Your task to perform on an android device: toggle wifi Image 0: 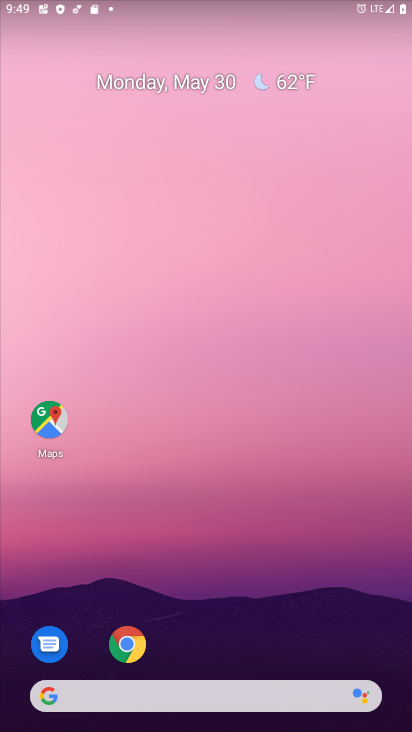
Step 0: drag from (396, 647) to (332, 123)
Your task to perform on an android device: toggle wifi Image 1: 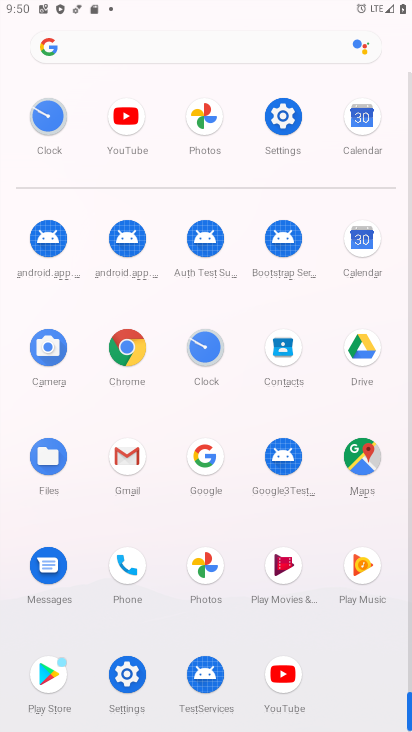
Step 1: click (126, 674)
Your task to perform on an android device: toggle wifi Image 2: 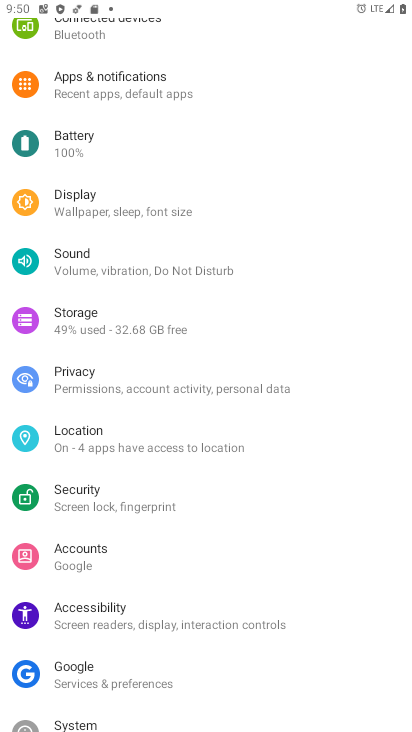
Step 2: drag from (339, 130) to (317, 416)
Your task to perform on an android device: toggle wifi Image 3: 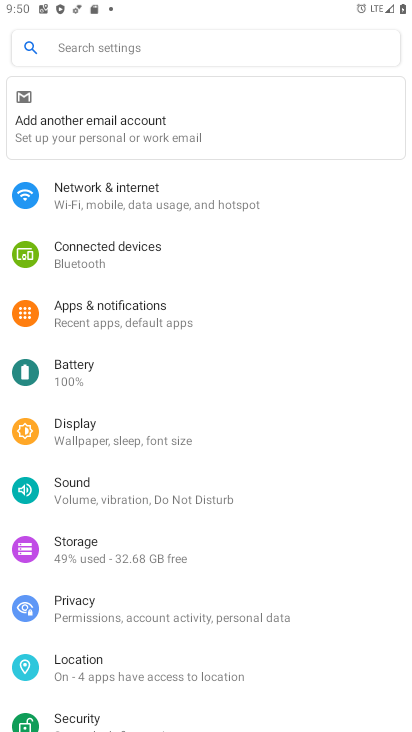
Step 3: click (126, 197)
Your task to perform on an android device: toggle wifi Image 4: 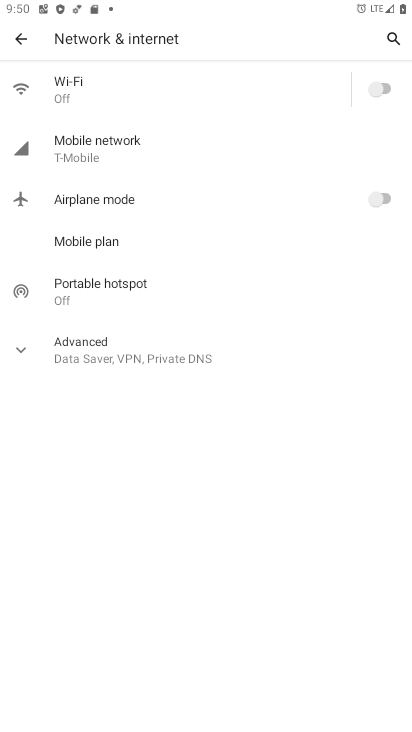
Step 4: click (384, 85)
Your task to perform on an android device: toggle wifi Image 5: 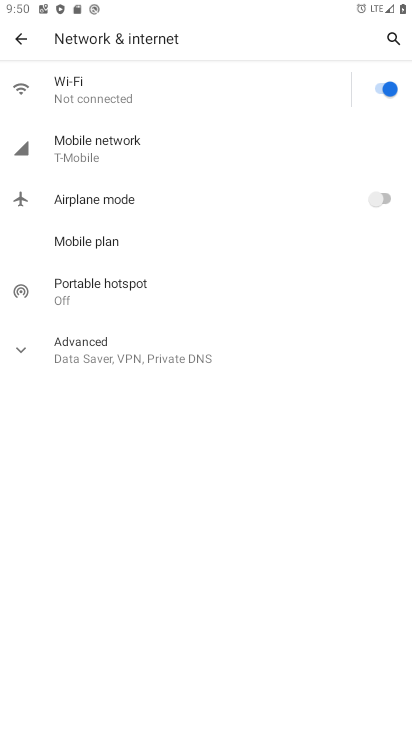
Step 5: task complete